Your task to perform on an android device: Show me the alarms in the clock app Image 0: 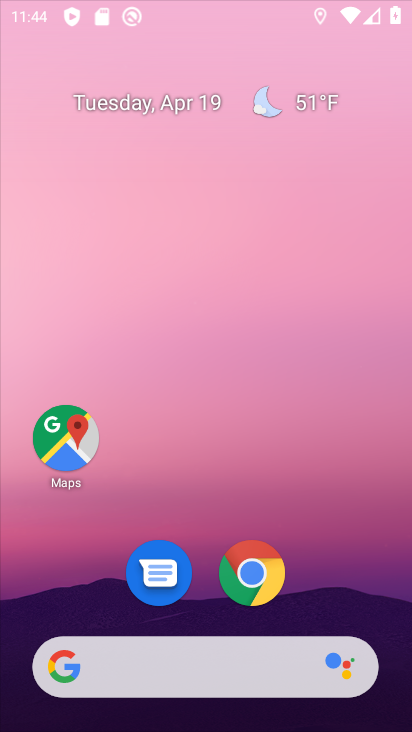
Step 0: click (273, 580)
Your task to perform on an android device: Show me the alarms in the clock app Image 1: 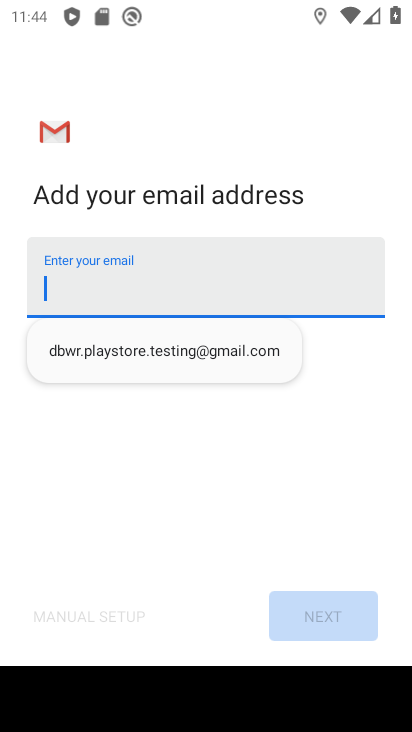
Step 1: press home button
Your task to perform on an android device: Show me the alarms in the clock app Image 2: 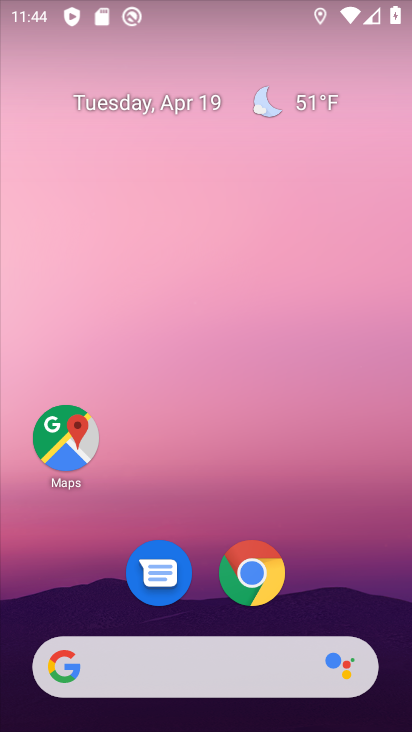
Step 2: drag from (315, 533) to (315, 200)
Your task to perform on an android device: Show me the alarms in the clock app Image 3: 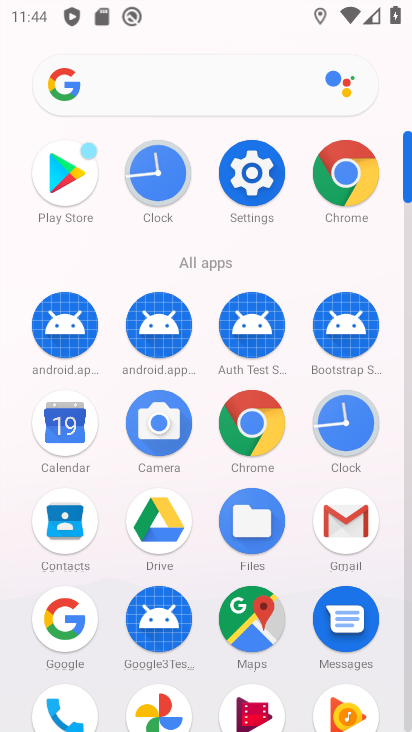
Step 3: click (341, 451)
Your task to perform on an android device: Show me the alarms in the clock app Image 4: 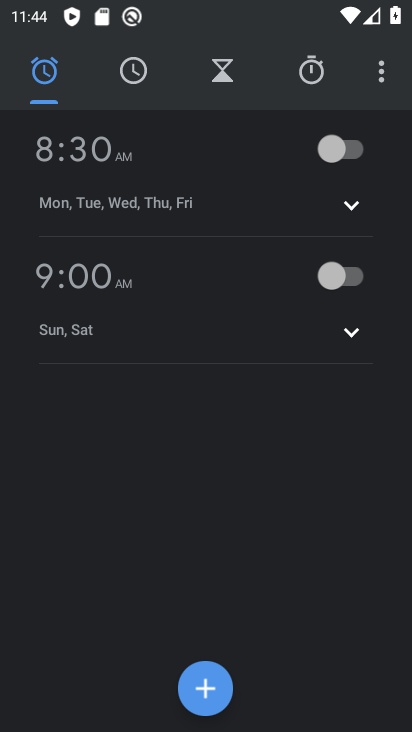
Step 4: task complete